Your task to perform on an android device: change alarm snooze length Image 0: 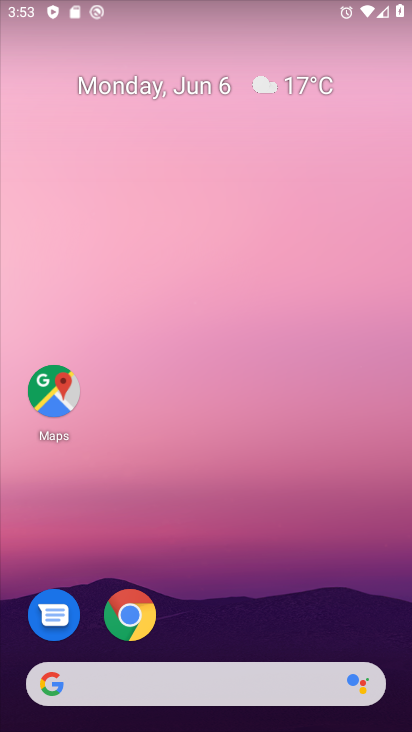
Step 0: drag from (242, 584) to (151, 10)
Your task to perform on an android device: change alarm snooze length Image 1: 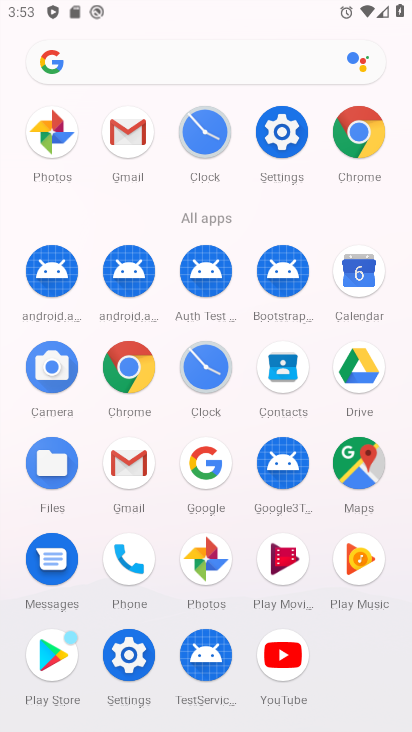
Step 1: drag from (4, 531) to (0, 284)
Your task to perform on an android device: change alarm snooze length Image 2: 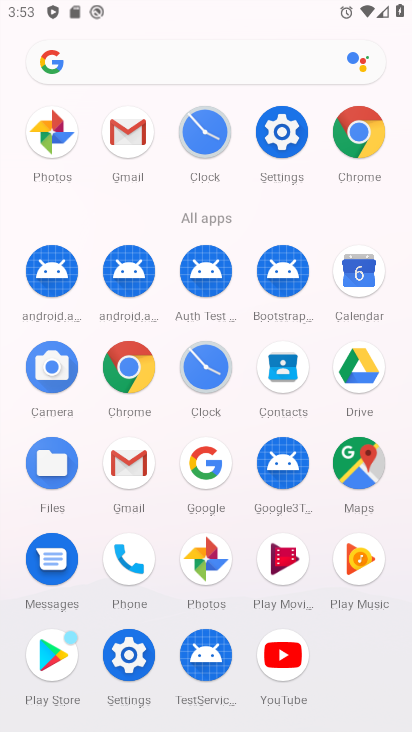
Step 2: drag from (15, 615) to (3, 315)
Your task to perform on an android device: change alarm snooze length Image 3: 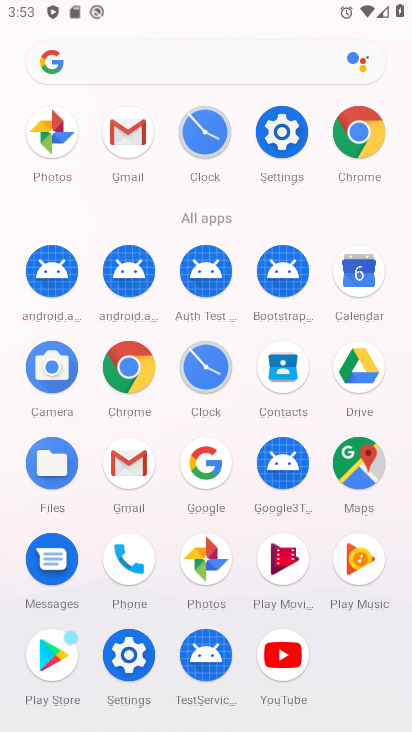
Step 3: click (201, 369)
Your task to perform on an android device: change alarm snooze length Image 4: 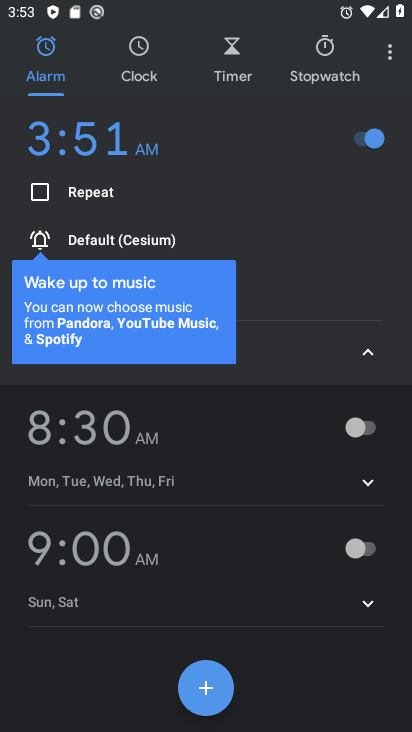
Step 4: click (388, 56)
Your task to perform on an android device: change alarm snooze length Image 5: 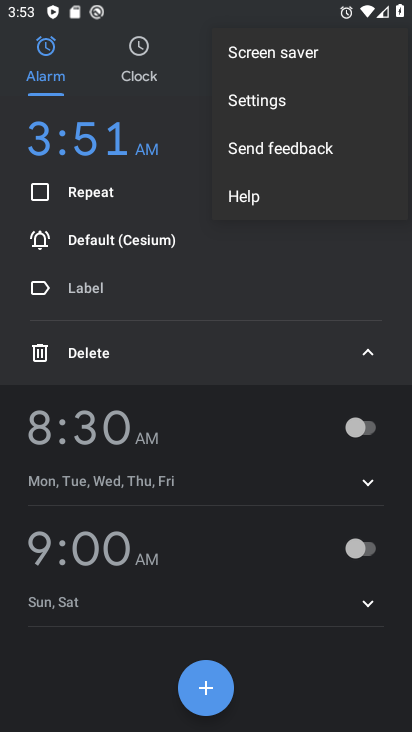
Step 5: click (310, 95)
Your task to perform on an android device: change alarm snooze length Image 6: 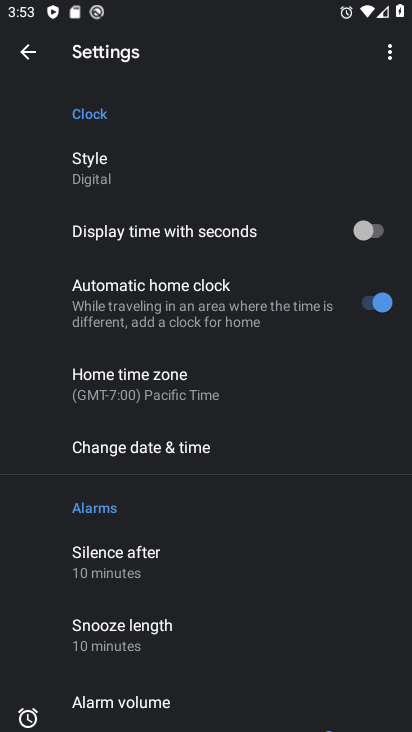
Step 6: click (160, 625)
Your task to perform on an android device: change alarm snooze length Image 7: 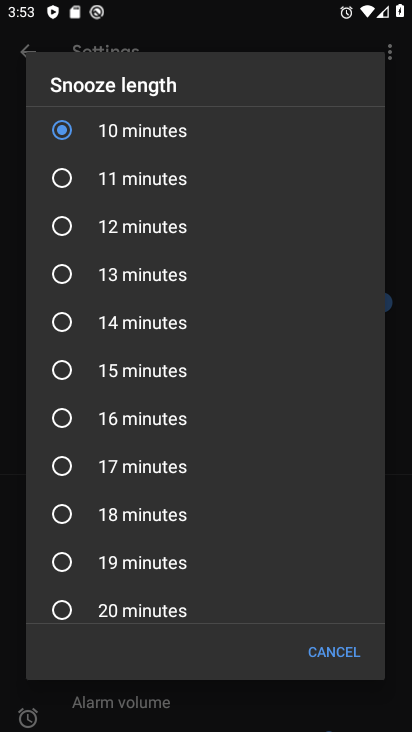
Step 7: click (97, 168)
Your task to perform on an android device: change alarm snooze length Image 8: 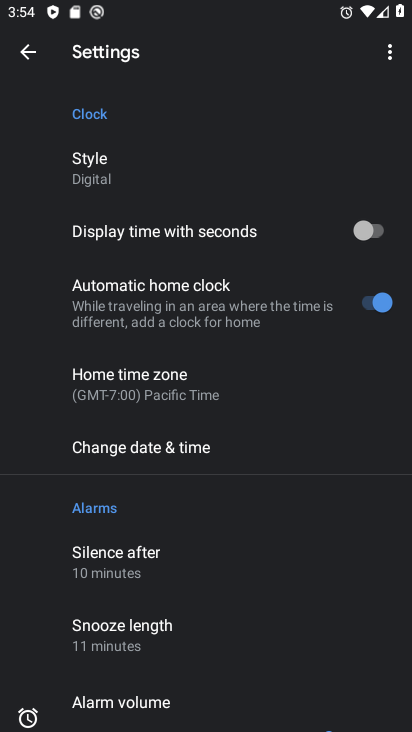
Step 8: task complete